Your task to perform on an android device: Open my contact list Image 0: 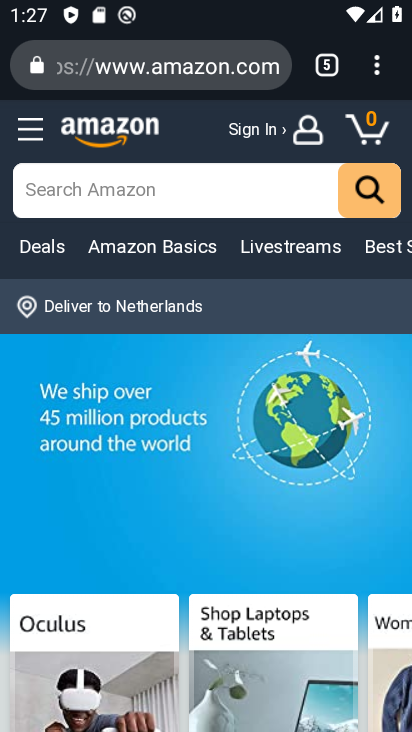
Step 0: press back button
Your task to perform on an android device: Open my contact list Image 1: 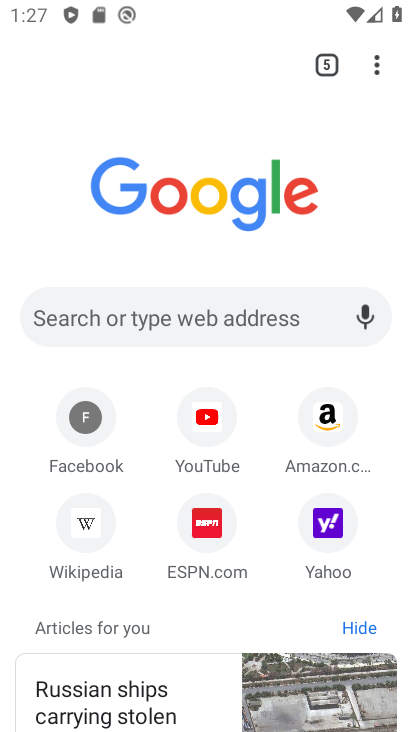
Step 1: press back button
Your task to perform on an android device: Open my contact list Image 2: 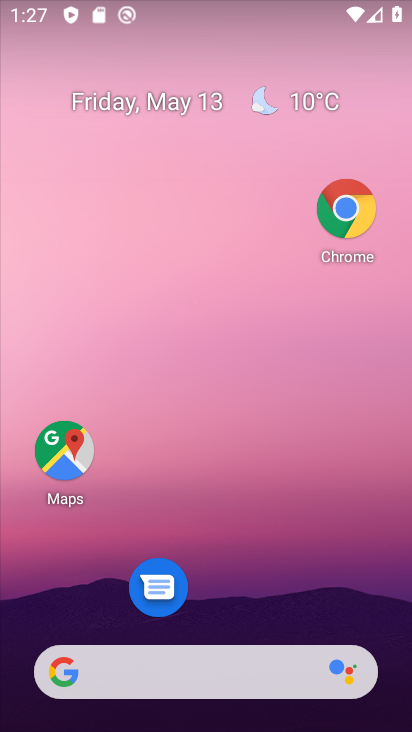
Step 2: drag from (318, 507) to (318, 27)
Your task to perform on an android device: Open my contact list Image 3: 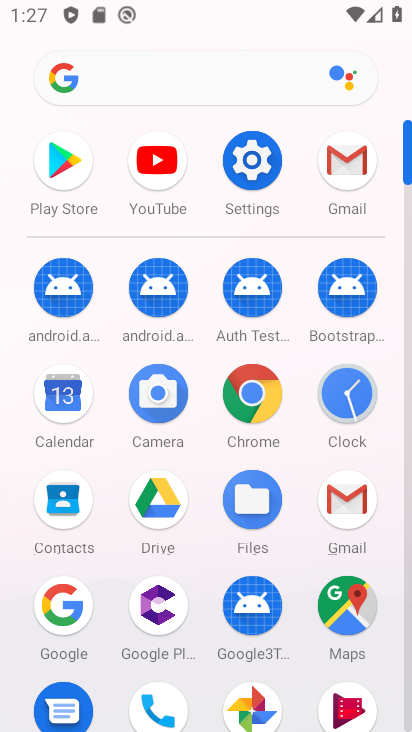
Step 3: click (59, 502)
Your task to perform on an android device: Open my contact list Image 4: 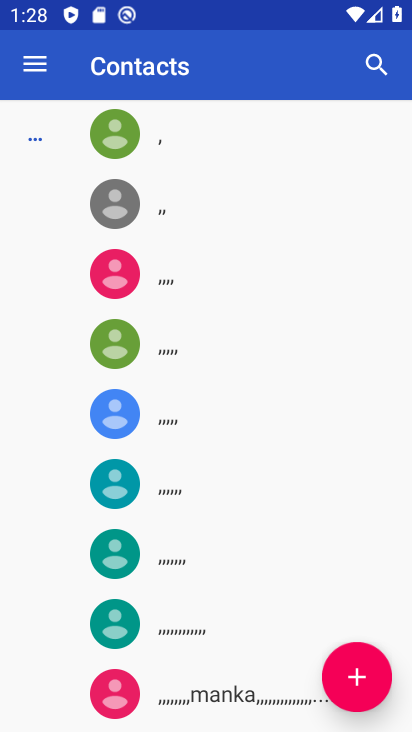
Step 4: click (368, 656)
Your task to perform on an android device: Open my contact list Image 5: 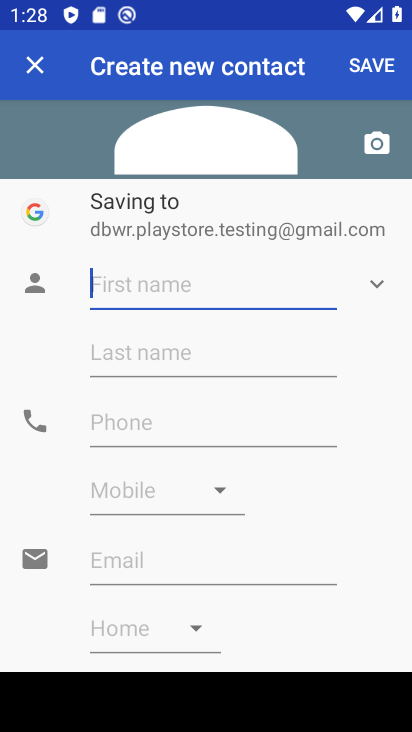
Step 5: type "cgcg"
Your task to perform on an android device: Open my contact list Image 6: 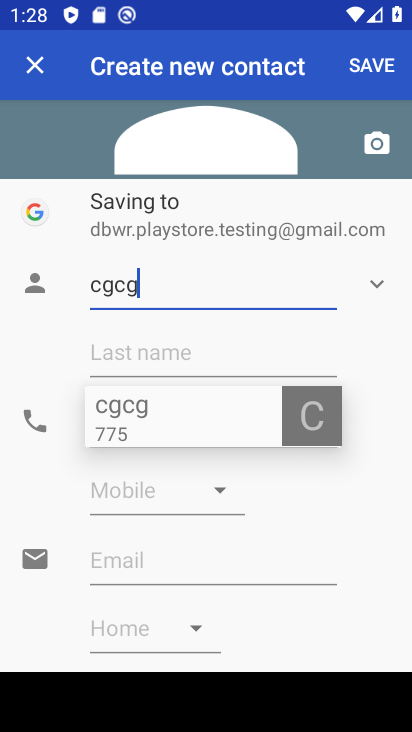
Step 6: click (188, 424)
Your task to perform on an android device: Open my contact list Image 7: 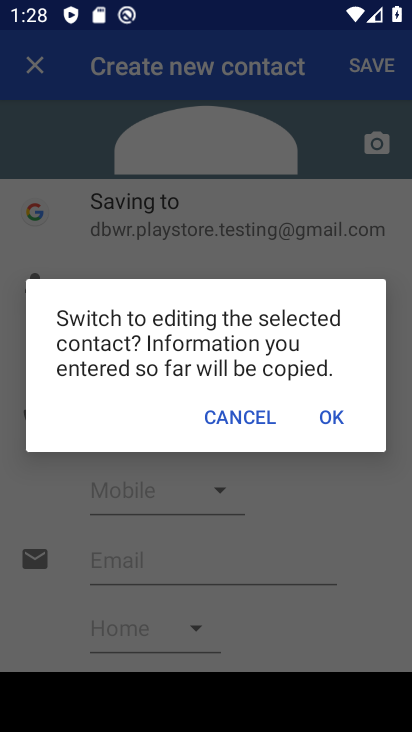
Step 7: click (323, 418)
Your task to perform on an android device: Open my contact list Image 8: 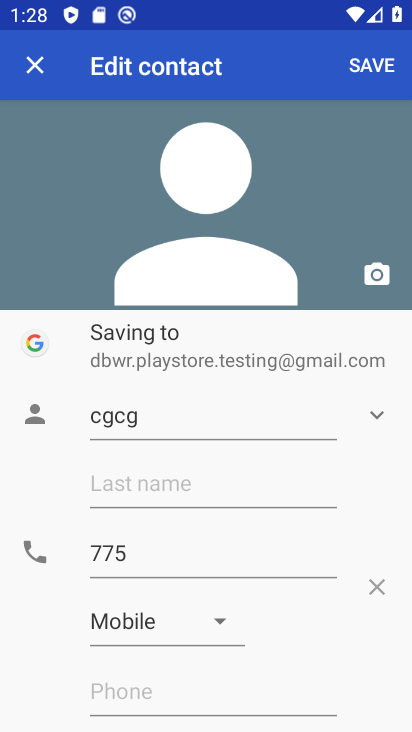
Step 8: click (368, 70)
Your task to perform on an android device: Open my contact list Image 9: 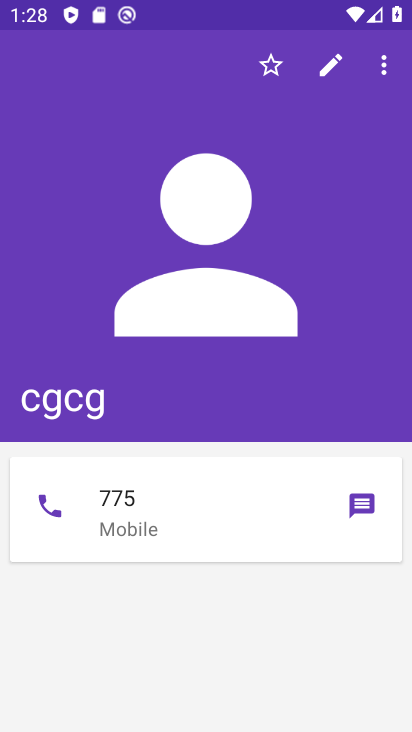
Step 9: task complete